Your task to perform on an android device: When is my next meeting? Image 0: 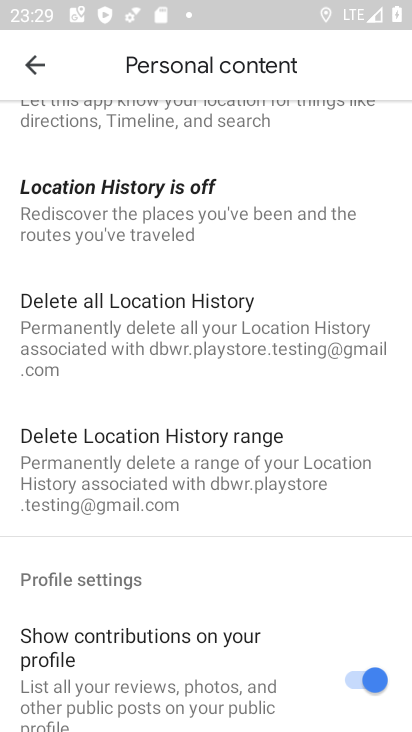
Step 0: click (22, 50)
Your task to perform on an android device: When is my next meeting? Image 1: 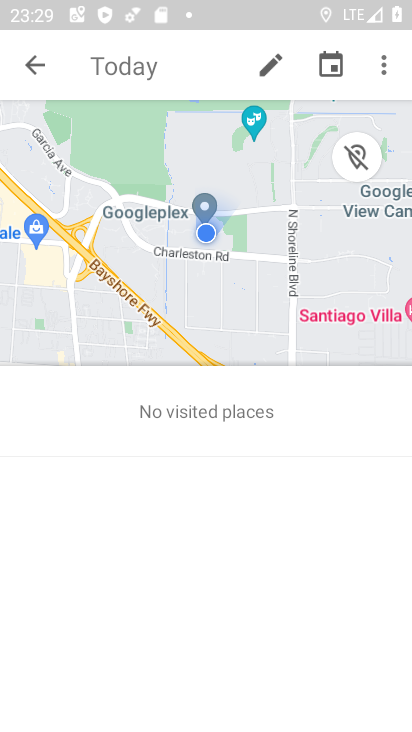
Step 1: press back button
Your task to perform on an android device: When is my next meeting? Image 2: 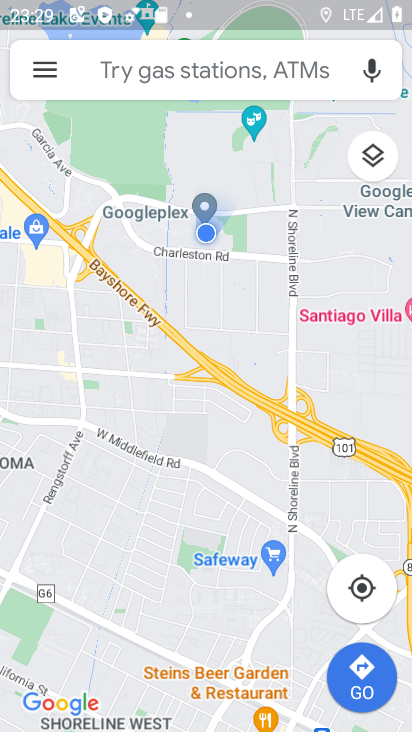
Step 2: press home button
Your task to perform on an android device: When is my next meeting? Image 3: 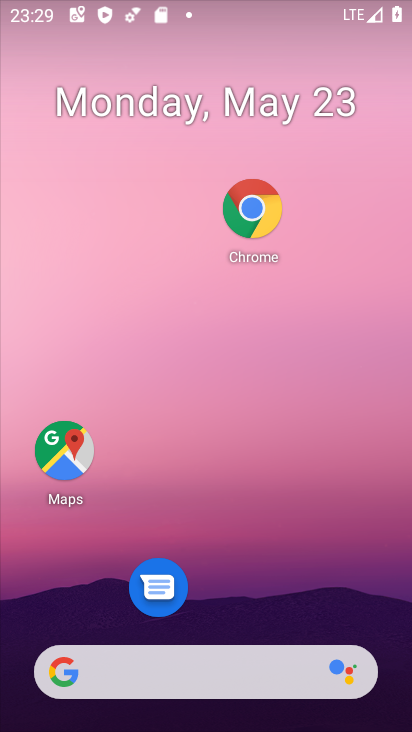
Step 3: drag from (290, 617) to (214, 246)
Your task to perform on an android device: When is my next meeting? Image 4: 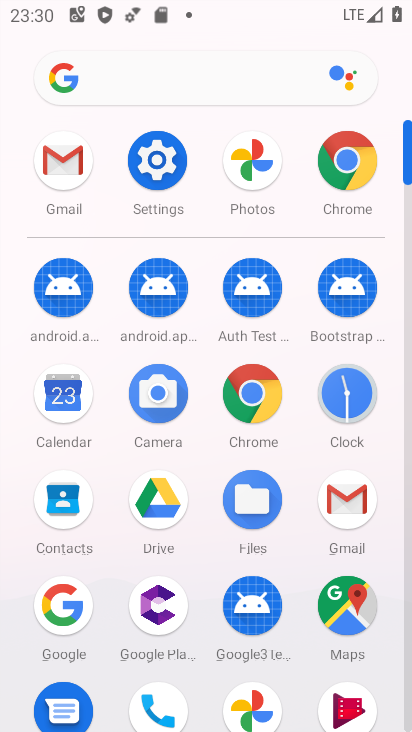
Step 4: click (58, 390)
Your task to perform on an android device: When is my next meeting? Image 5: 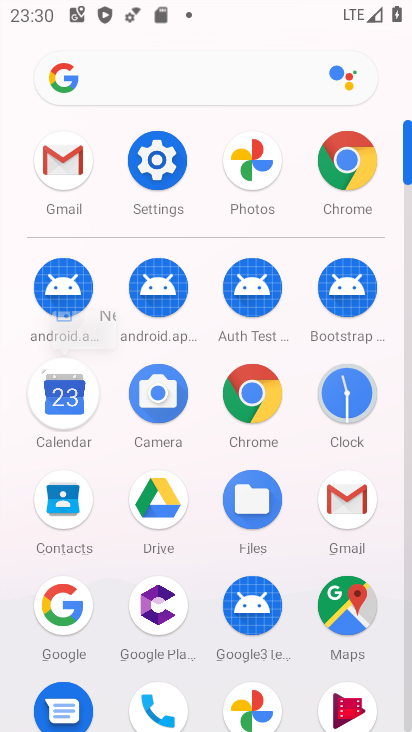
Step 5: click (58, 390)
Your task to perform on an android device: When is my next meeting? Image 6: 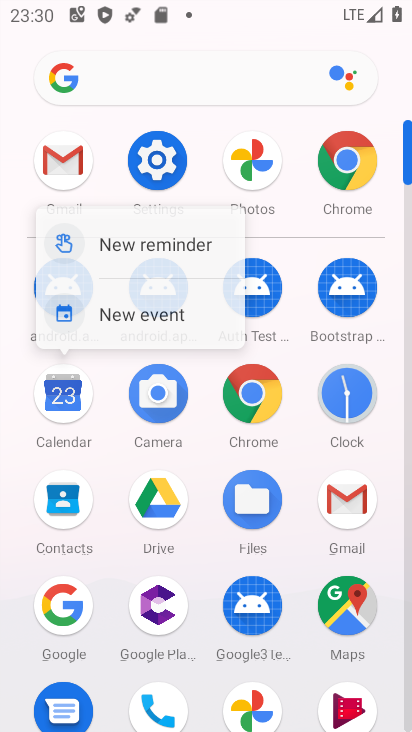
Step 6: click (58, 388)
Your task to perform on an android device: When is my next meeting? Image 7: 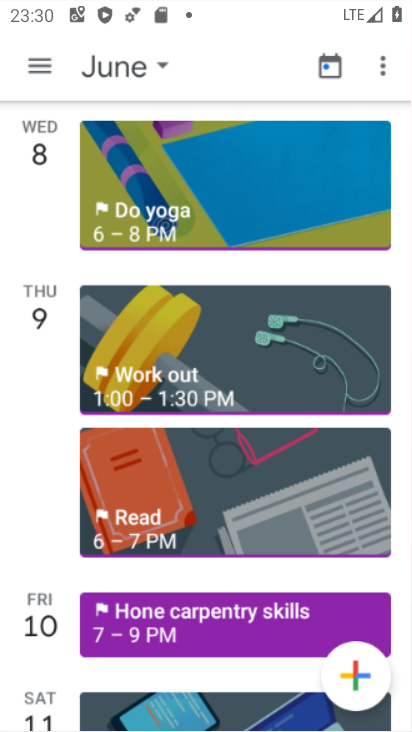
Step 7: click (58, 388)
Your task to perform on an android device: When is my next meeting? Image 8: 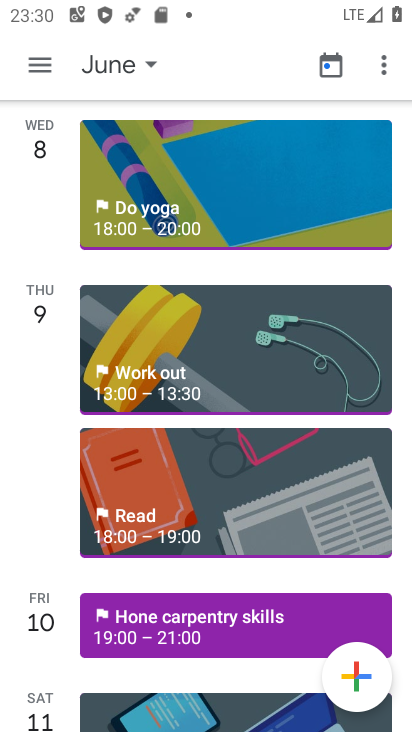
Step 8: click (147, 72)
Your task to perform on an android device: When is my next meeting? Image 9: 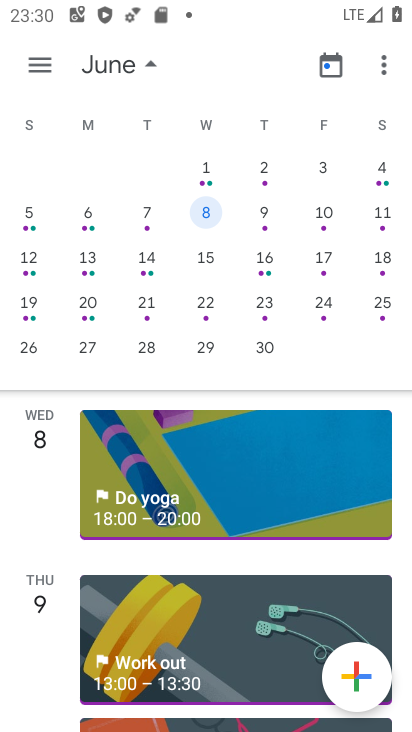
Step 9: drag from (262, 262) to (2, 364)
Your task to perform on an android device: When is my next meeting? Image 10: 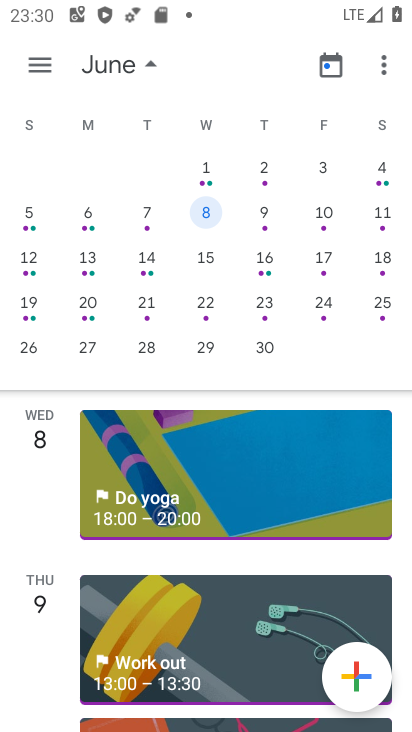
Step 10: drag from (278, 257) to (38, 318)
Your task to perform on an android device: When is my next meeting? Image 11: 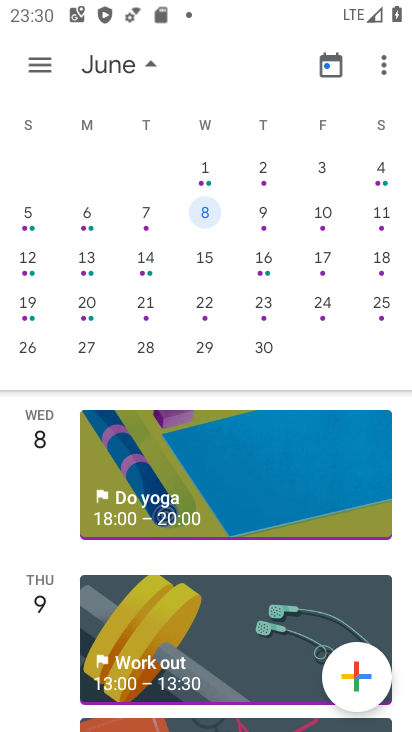
Step 11: drag from (250, 261) to (2, 333)
Your task to perform on an android device: When is my next meeting? Image 12: 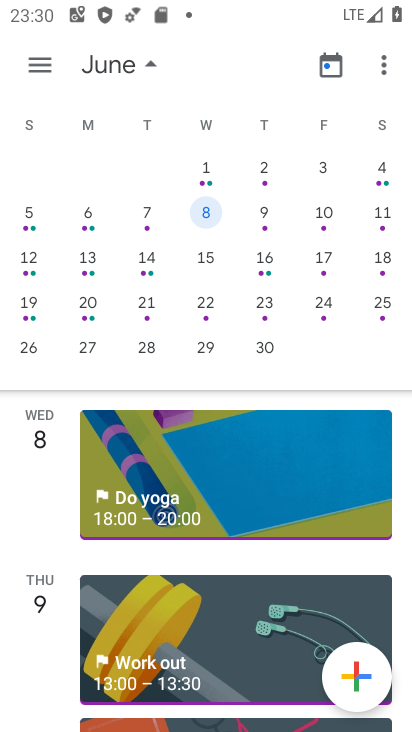
Step 12: drag from (10, 363) to (30, 311)
Your task to perform on an android device: When is my next meeting? Image 13: 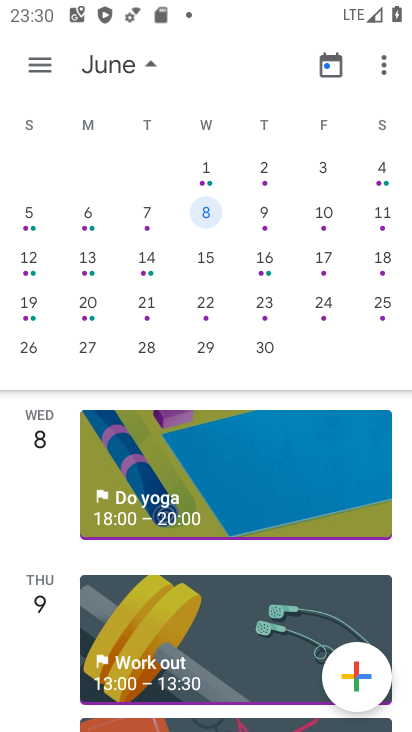
Step 13: drag from (271, 256) to (37, 277)
Your task to perform on an android device: When is my next meeting? Image 14: 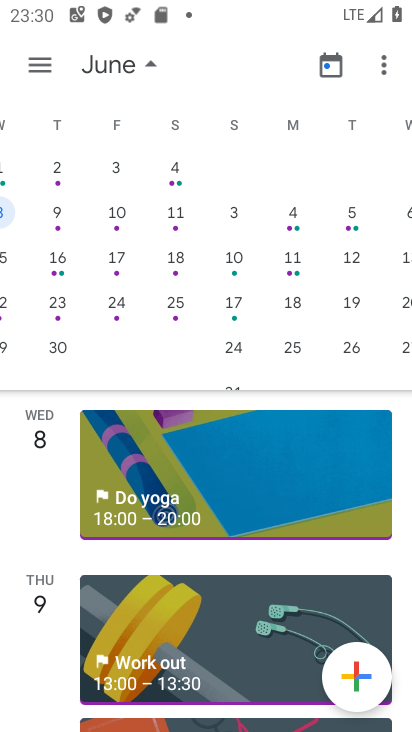
Step 14: drag from (195, 253) to (54, 309)
Your task to perform on an android device: When is my next meeting? Image 15: 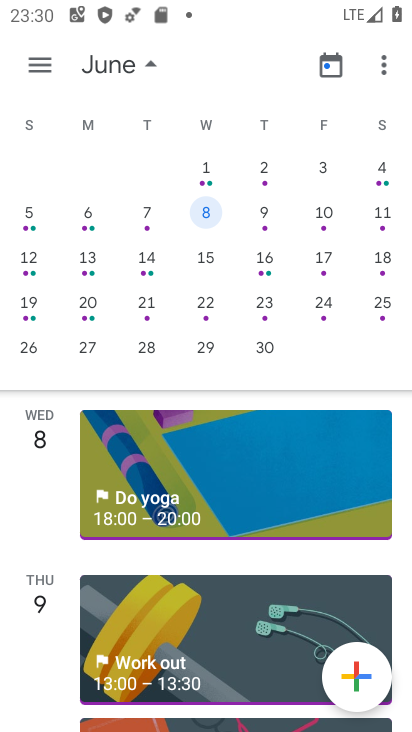
Step 15: drag from (208, 262) to (7, 277)
Your task to perform on an android device: When is my next meeting? Image 16: 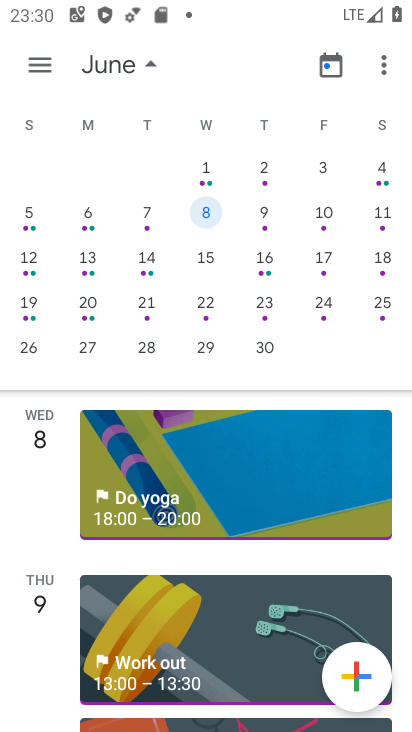
Step 16: drag from (126, 546) to (171, 296)
Your task to perform on an android device: When is my next meeting? Image 17: 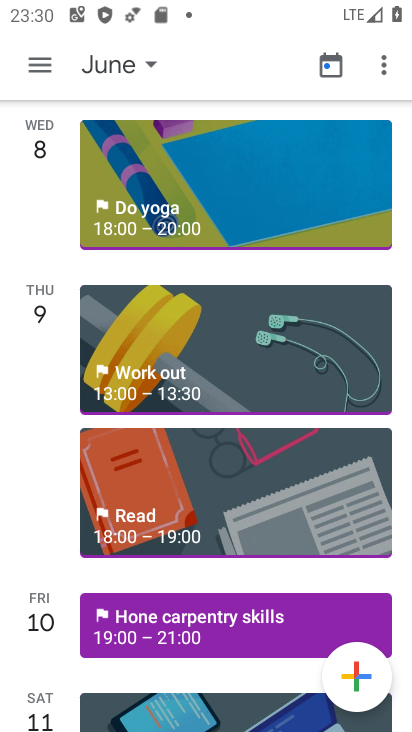
Step 17: drag from (165, 235) to (181, 533)
Your task to perform on an android device: When is my next meeting? Image 18: 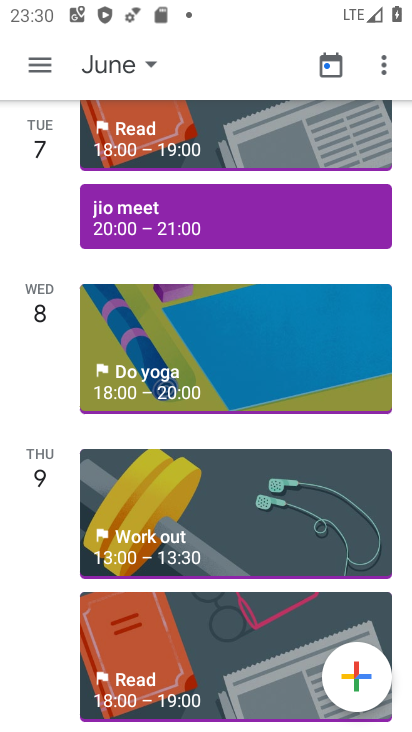
Step 18: drag from (181, 175) to (215, 616)
Your task to perform on an android device: When is my next meeting? Image 19: 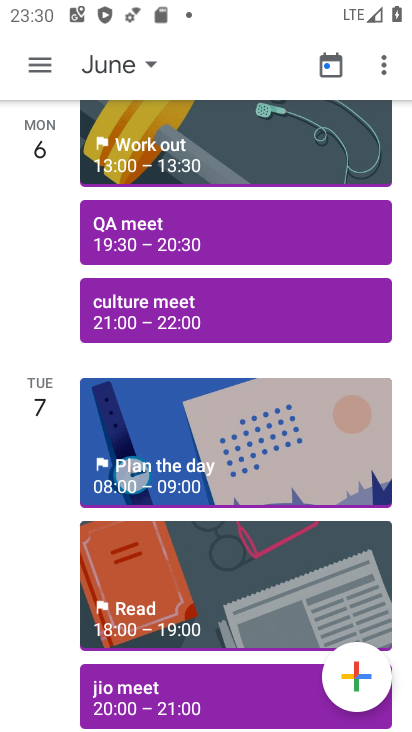
Step 19: click (143, 232)
Your task to perform on an android device: When is my next meeting? Image 20: 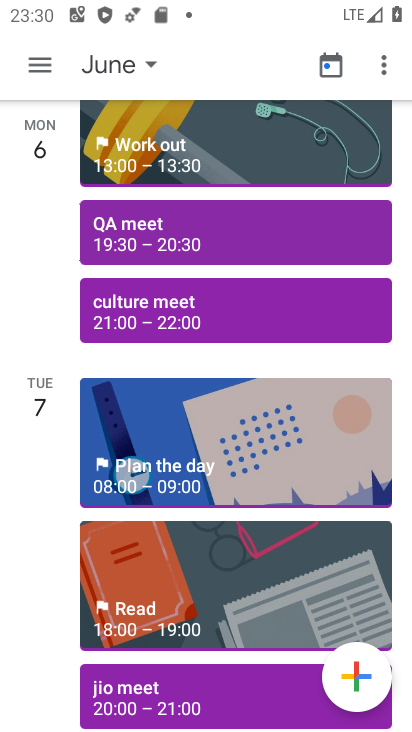
Step 20: click (143, 232)
Your task to perform on an android device: When is my next meeting? Image 21: 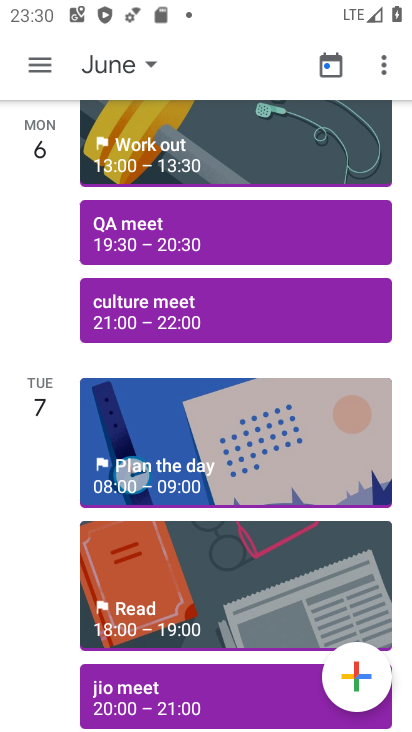
Step 21: click (144, 231)
Your task to perform on an android device: When is my next meeting? Image 22: 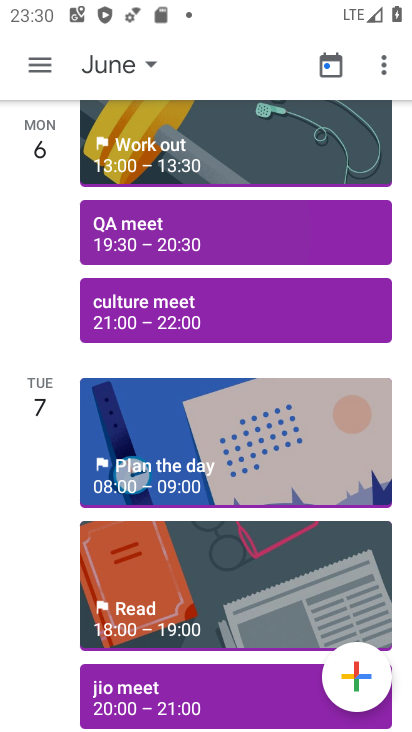
Step 22: click (144, 231)
Your task to perform on an android device: When is my next meeting? Image 23: 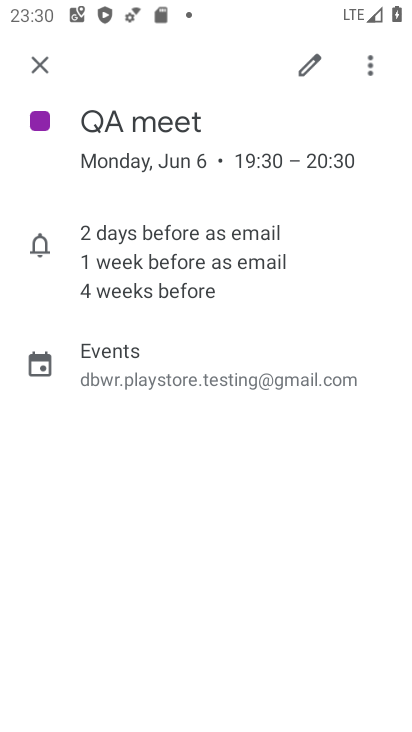
Step 23: task complete